Your task to perform on an android device: Find coffee shops on Maps Image 0: 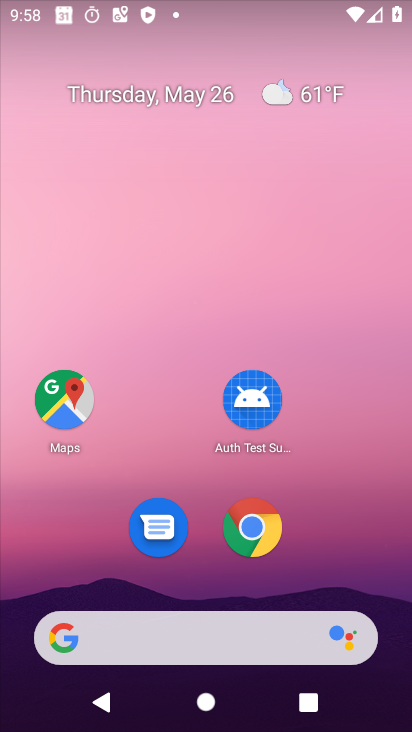
Step 0: drag from (314, 588) to (127, 30)
Your task to perform on an android device: Find coffee shops on Maps Image 1: 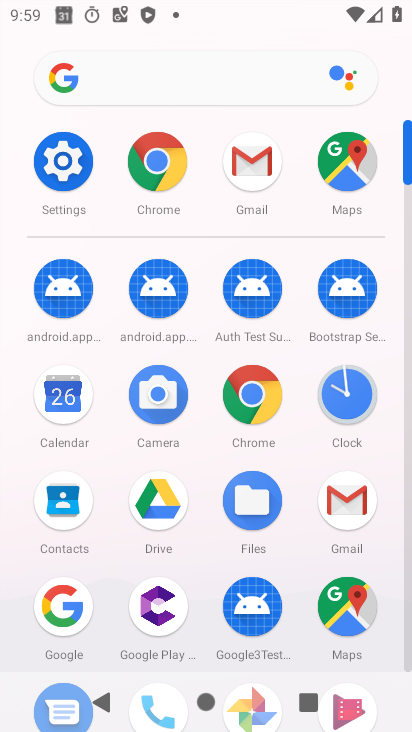
Step 1: click (351, 156)
Your task to perform on an android device: Find coffee shops on Maps Image 2: 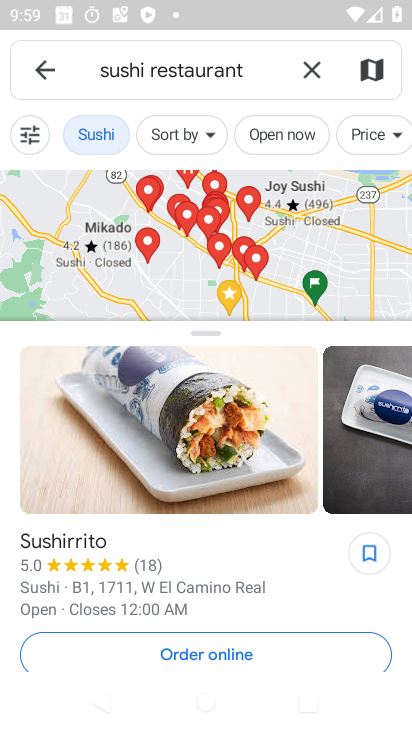
Step 2: click (320, 76)
Your task to perform on an android device: Find coffee shops on Maps Image 3: 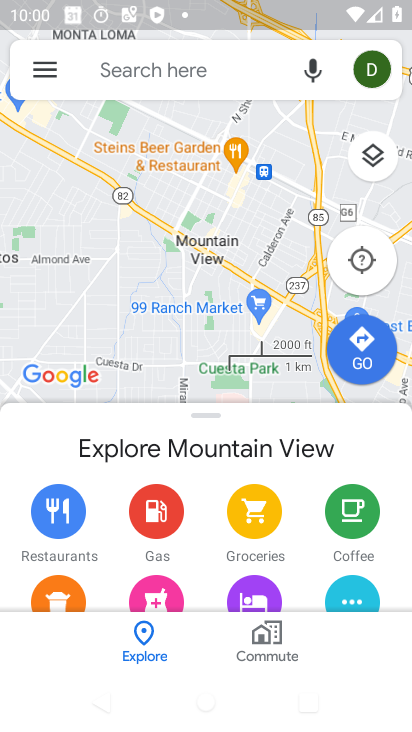
Step 3: click (137, 80)
Your task to perform on an android device: Find coffee shops on Maps Image 4: 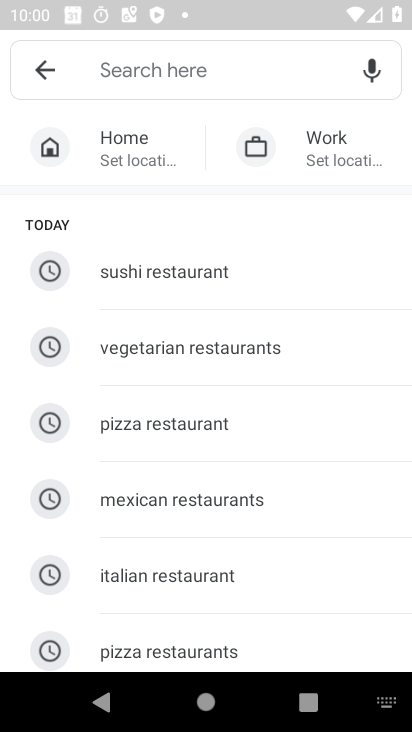
Step 4: drag from (183, 560) to (209, 285)
Your task to perform on an android device: Find coffee shops on Maps Image 5: 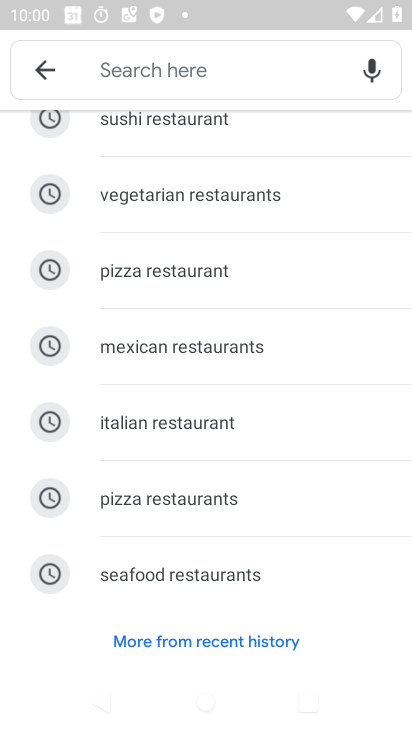
Step 5: click (159, 627)
Your task to perform on an android device: Find coffee shops on Maps Image 6: 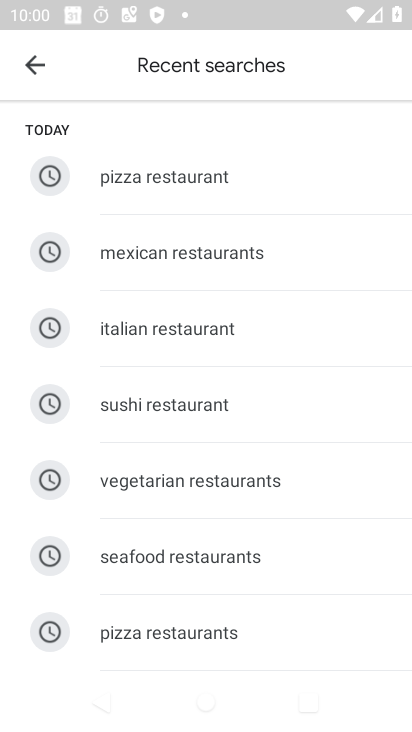
Step 6: drag from (142, 607) to (229, 163)
Your task to perform on an android device: Find coffee shops on Maps Image 7: 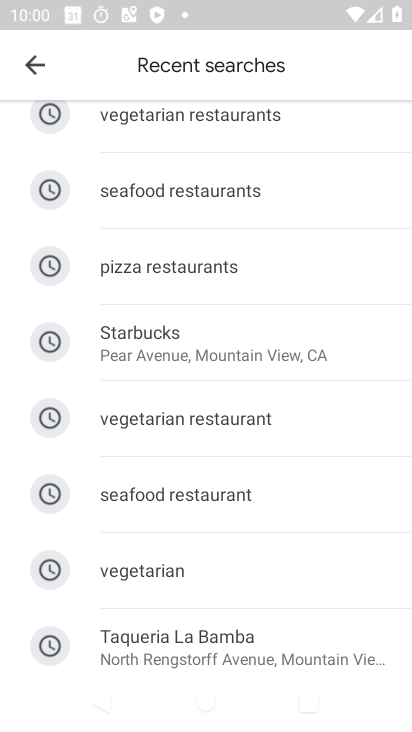
Step 7: drag from (180, 545) to (239, 233)
Your task to perform on an android device: Find coffee shops on Maps Image 8: 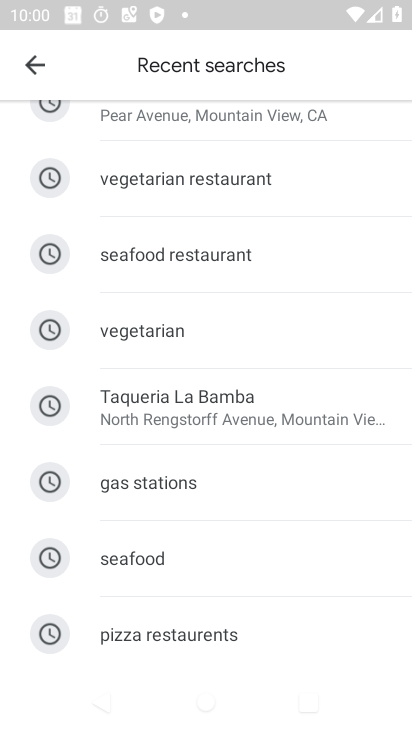
Step 8: drag from (210, 611) to (261, 173)
Your task to perform on an android device: Find coffee shops on Maps Image 9: 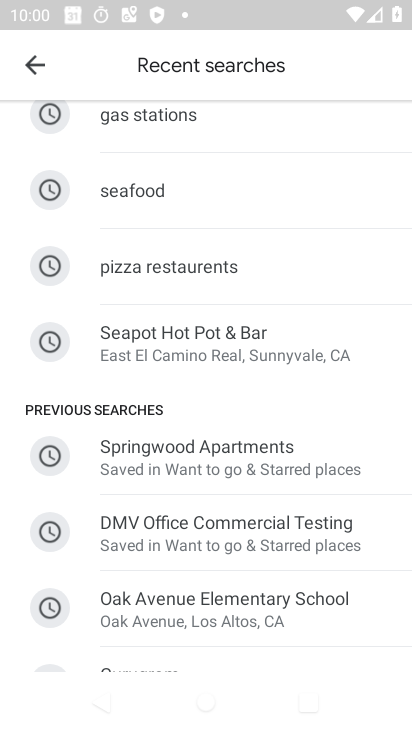
Step 9: drag from (225, 173) to (291, 702)
Your task to perform on an android device: Find coffee shops on Maps Image 10: 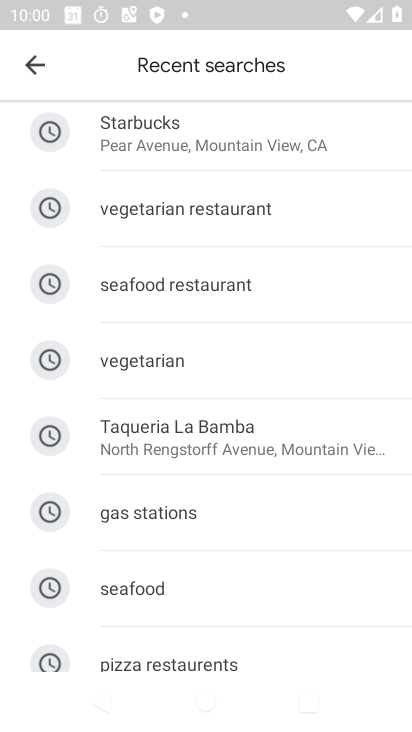
Step 10: drag from (251, 360) to (253, 671)
Your task to perform on an android device: Find coffee shops on Maps Image 11: 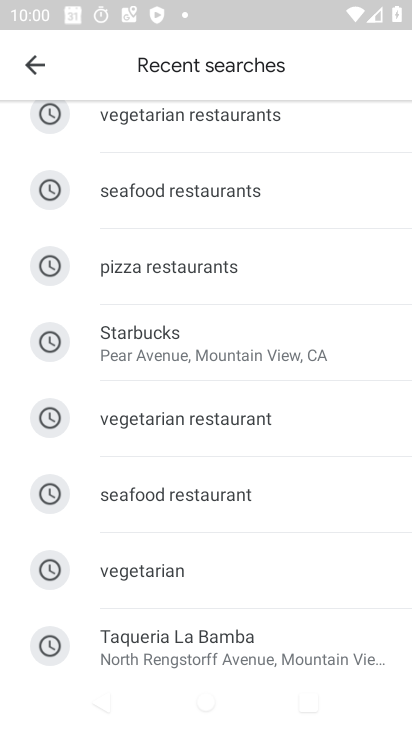
Step 11: drag from (279, 234) to (246, 662)
Your task to perform on an android device: Find coffee shops on Maps Image 12: 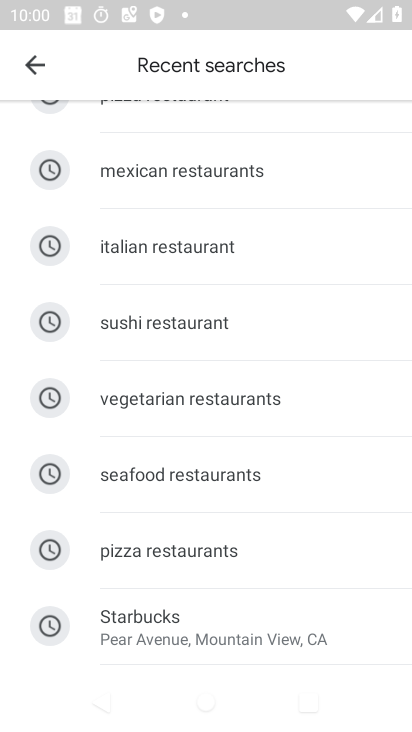
Step 12: drag from (214, 275) to (224, 625)
Your task to perform on an android device: Find coffee shops on Maps Image 13: 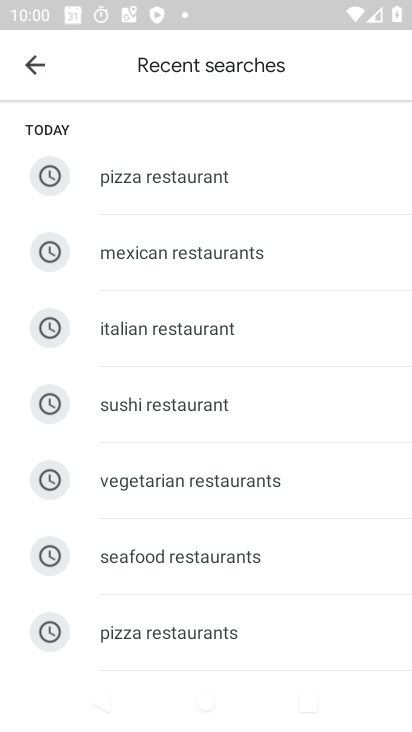
Step 13: click (40, 62)
Your task to perform on an android device: Find coffee shops on Maps Image 14: 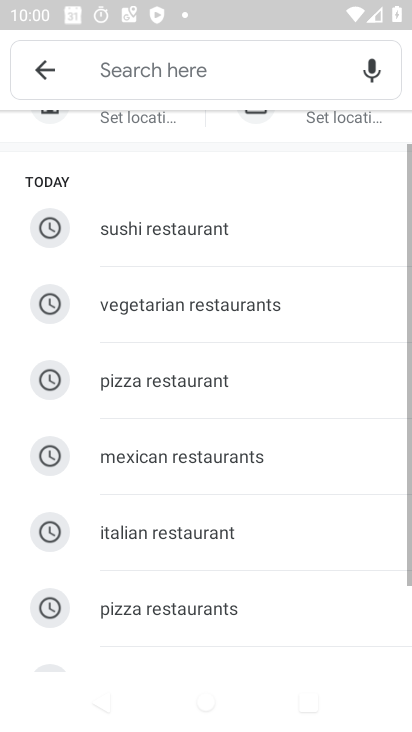
Step 14: click (164, 62)
Your task to perform on an android device: Find coffee shops on Maps Image 15: 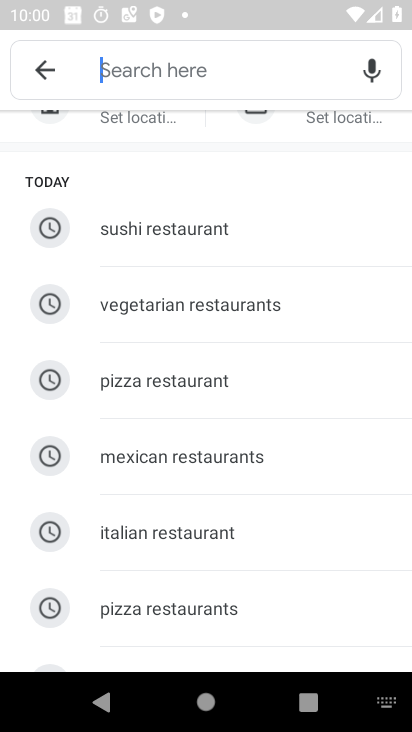
Step 15: type "coffee"
Your task to perform on an android device: Find coffee shops on Maps Image 16: 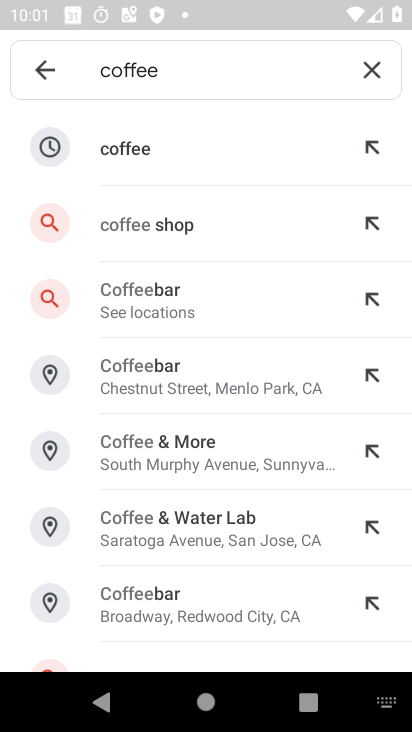
Step 16: click (159, 151)
Your task to perform on an android device: Find coffee shops on Maps Image 17: 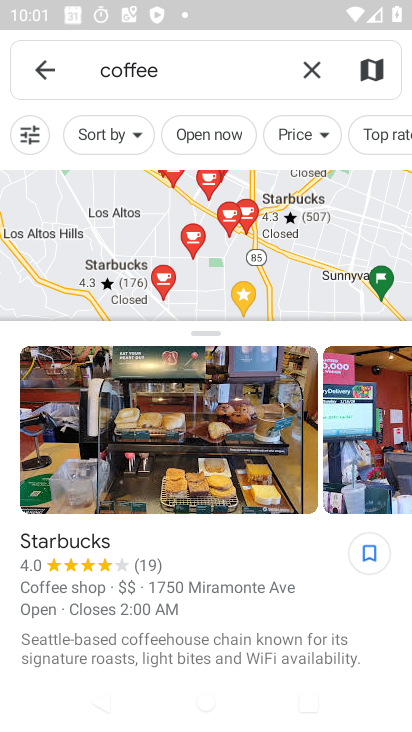
Step 17: task complete